Your task to perform on an android device: open wifi settings Image 0: 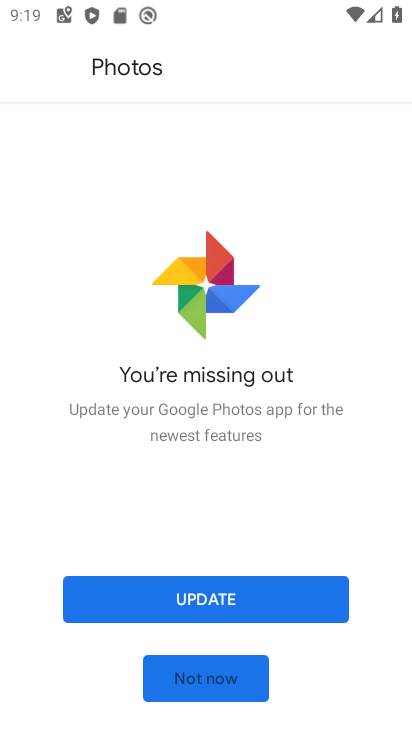
Step 0: press home button
Your task to perform on an android device: open wifi settings Image 1: 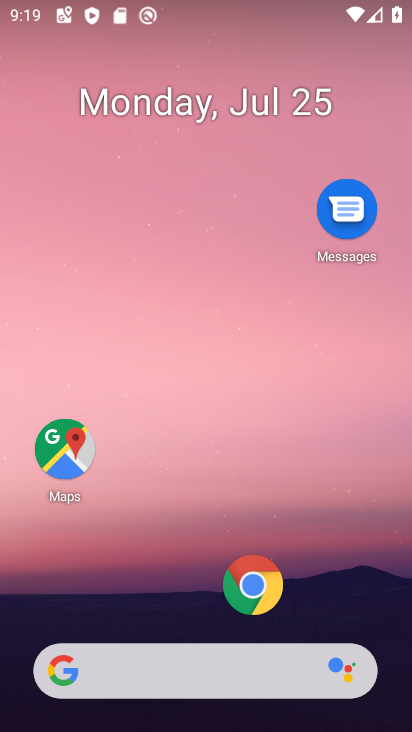
Step 1: drag from (194, 572) to (228, 65)
Your task to perform on an android device: open wifi settings Image 2: 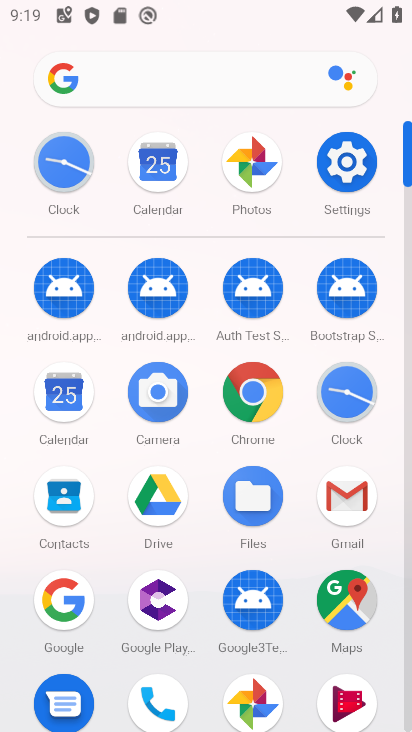
Step 2: click (351, 176)
Your task to perform on an android device: open wifi settings Image 3: 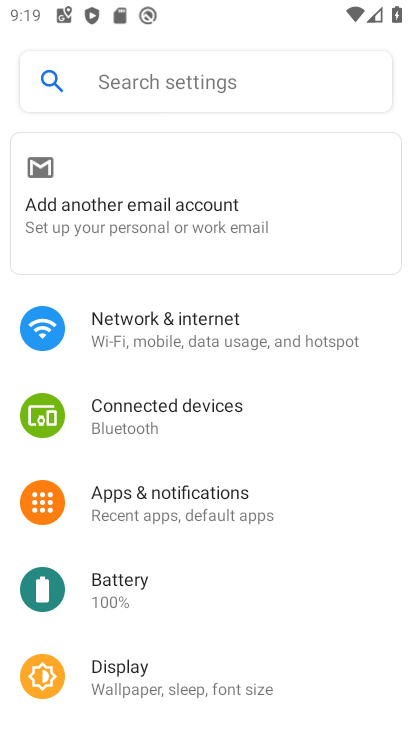
Step 3: click (220, 327)
Your task to perform on an android device: open wifi settings Image 4: 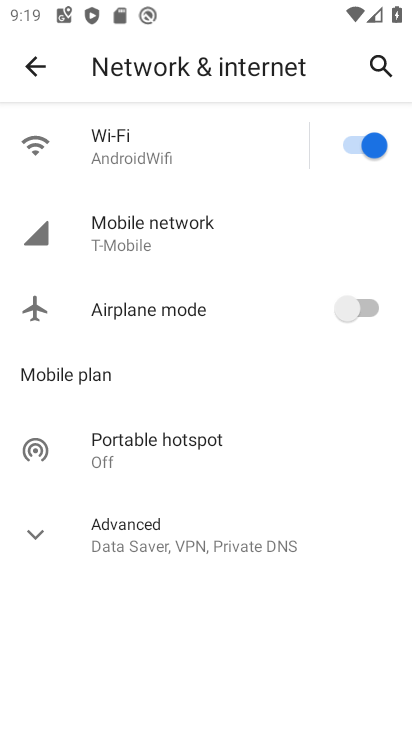
Step 4: click (123, 157)
Your task to perform on an android device: open wifi settings Image 5: 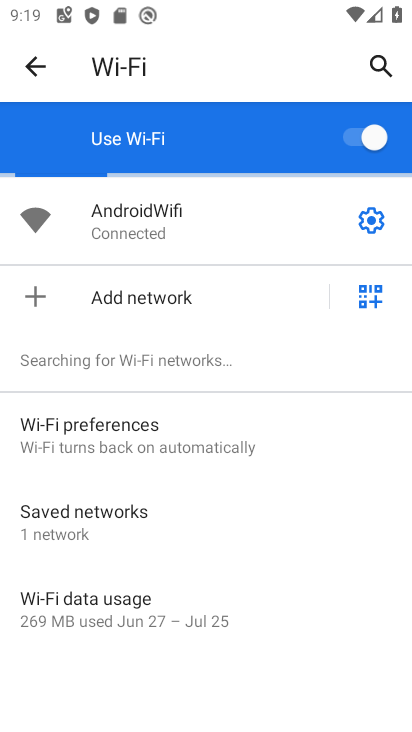
Step 5: task complete